Your task to perform on an android device: turn pop-ups off in chrome Image 0: 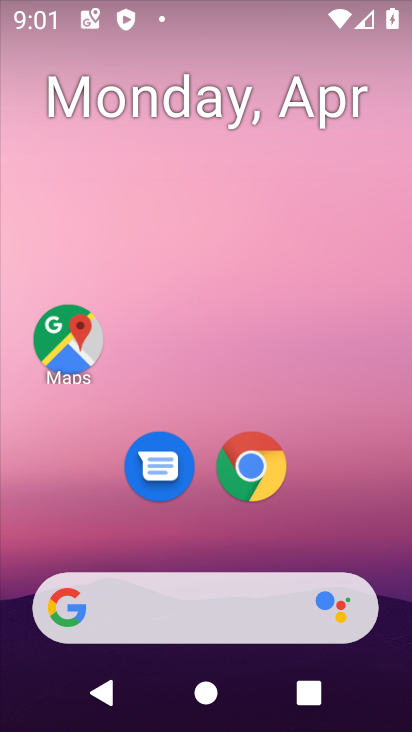
Step 0: click (257, 465)
Your task to perform on an android device: turn pop-ups off in chrome Image 1: 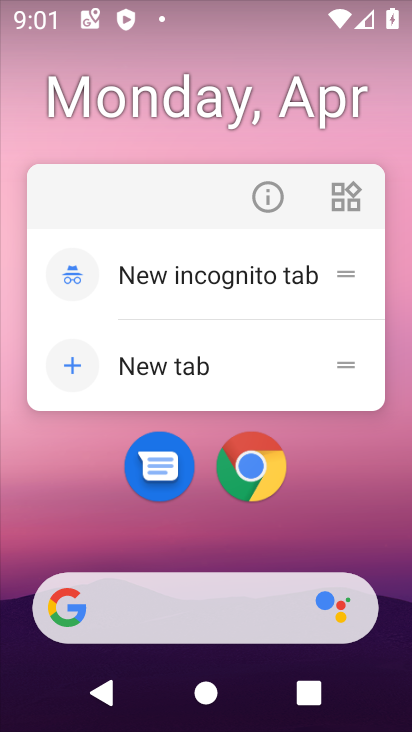
Step 1: click (256, 466)
Your task to perform on an android device: turn pop-ups off in chrome Image 2: 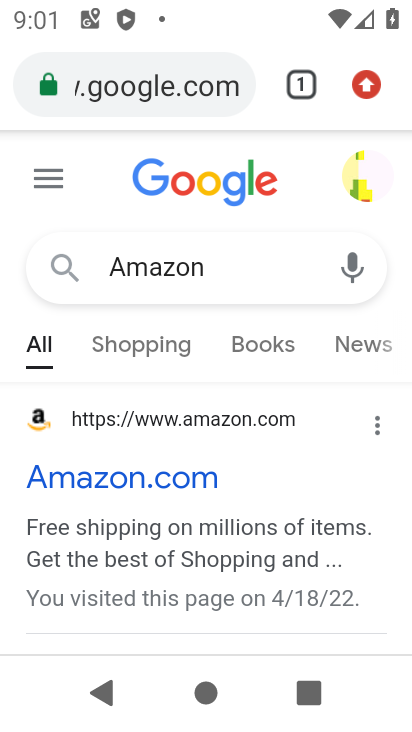
Step 2: click (370, 90)
Your task to perform on an android device: turn pop-ups off in chrome Image 3: 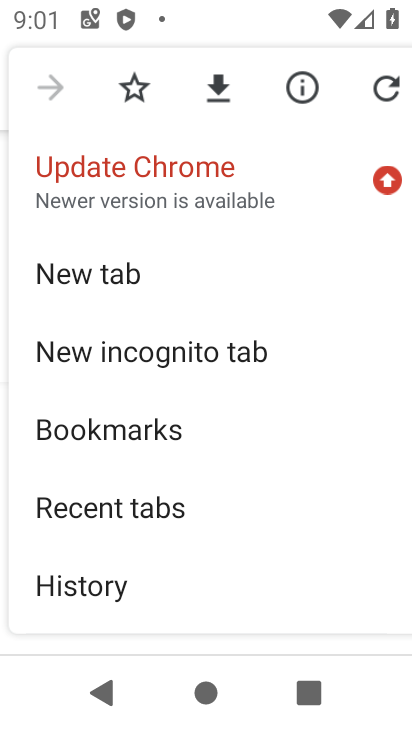
Step 3: drag from (196, 527) to (255, 371)
Your task to perform on an android device: turn pop-ups off in chrome Image 4: 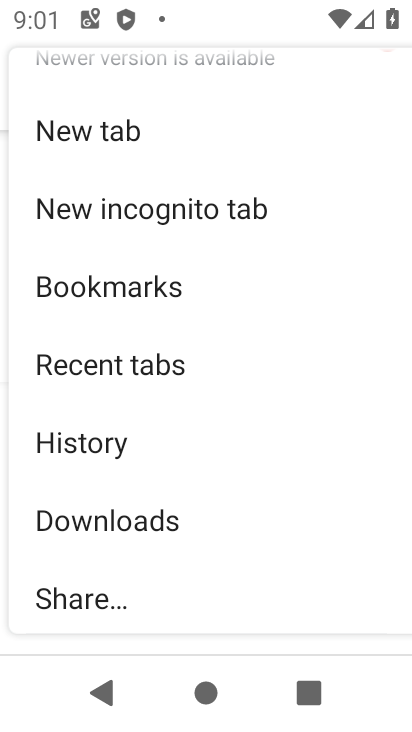
Step 4: drag from (194, 510) to (216, 417)
Your task to perform on an android device: turn pop-ups off in chrome Image 5: 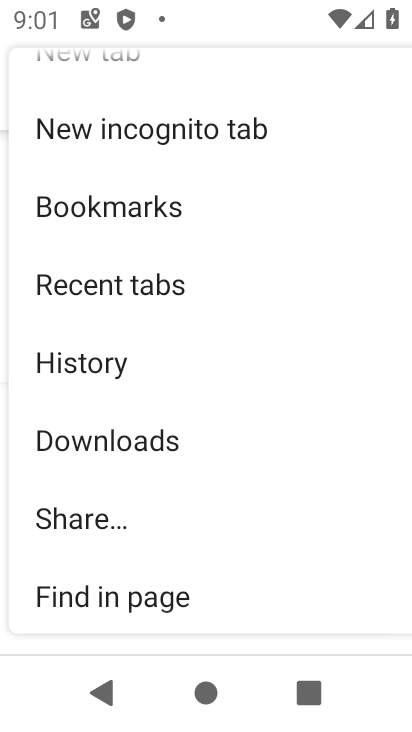
Step 5: drag from (188, 524) to (217, 418)
Your task to perform on an android device: turn pop-ups off in chrome Image 6: 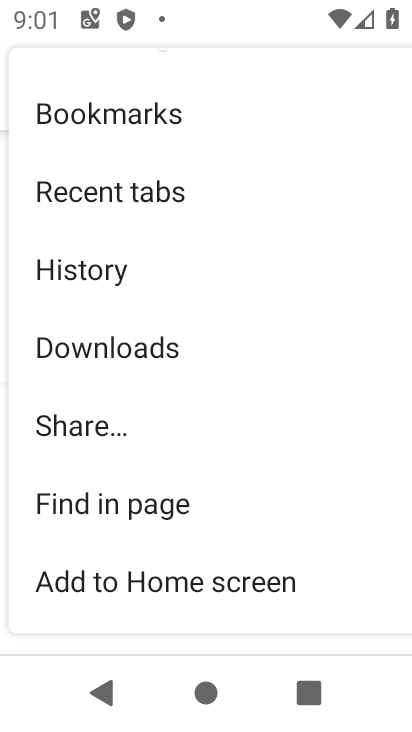
Step 6: drag from (190, 530) to (223, 456)
Your task to perform on an android device: turn pop-ups off in chrome Image 7: 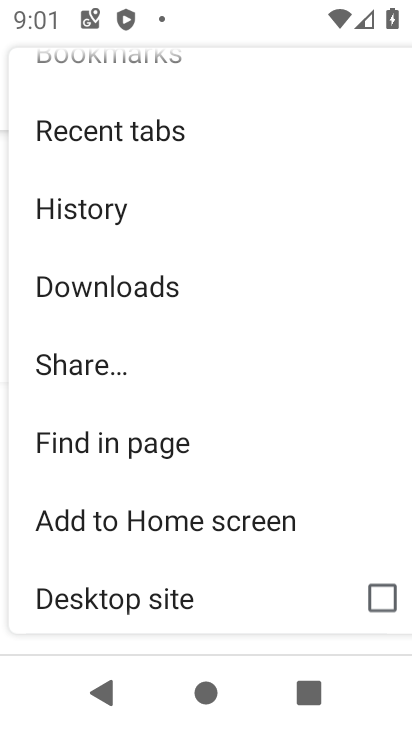
Step 7: drag from (175, 545) to (219, 466)
Your task to perform on an android device: turn pop-ups off in chrome Image 8: 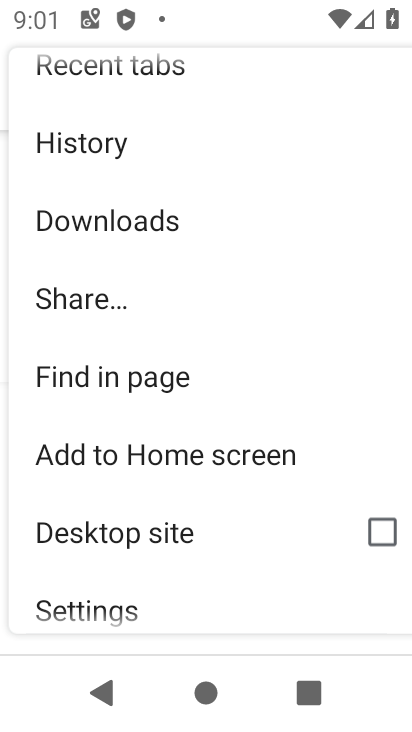
Step 8: drag from (187, 568) to (228, 468)
Your task to perform on an android device: turn pop-ups off in chrome Image 9: 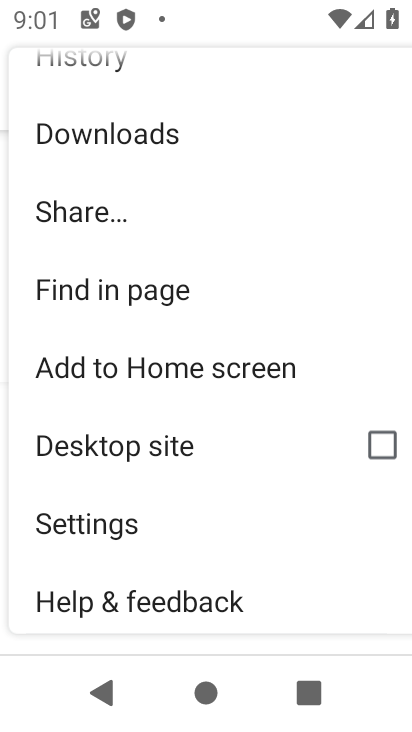
Step 9: click (94, 524)
Your task to perform on an android device: turn pop-ups off in chrome Image 10: 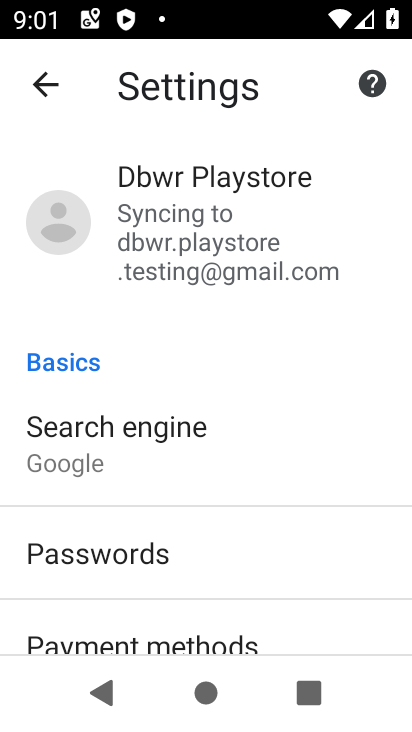
Step 10: drag from (215, 582) to (287, 434)
Your task to perform on an android device: turn pop-ups off in chrome Image 11: 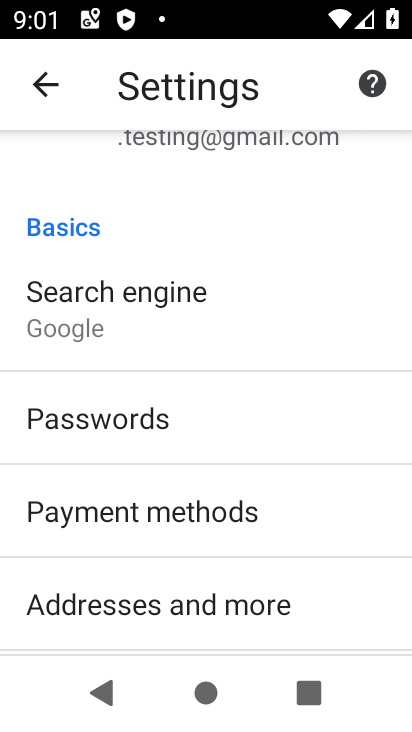
Step 11: drag from (192, 551) to (260, 390)
Your task to perform on an android device: turn pop-ups off in chrome Image 12: 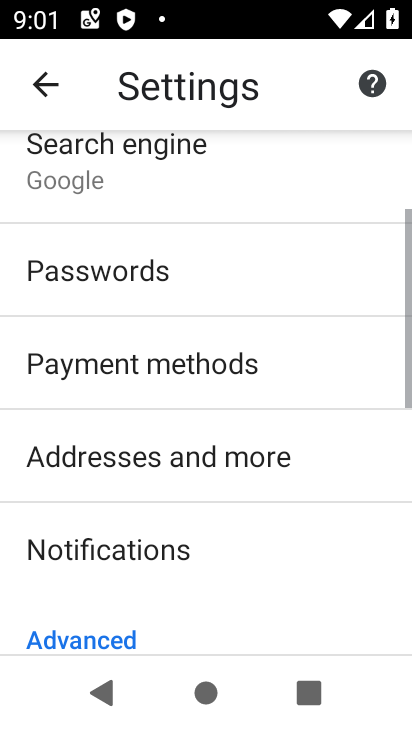
Step 12: drag from (187, 566) to (248, 434)
Your task to perform on an android device: turn pop-ups off in chrome Image 13: 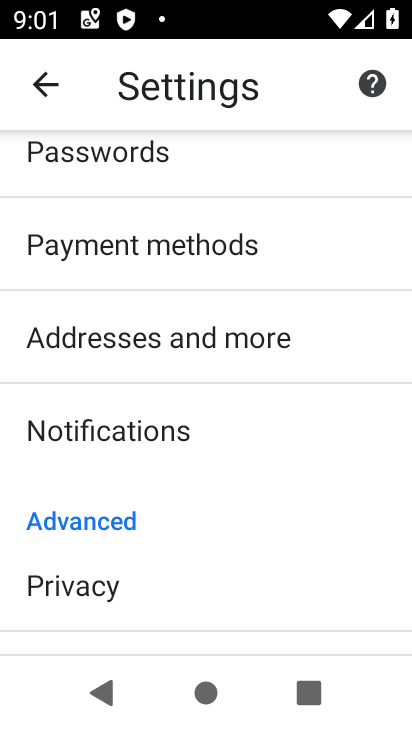
Step 13: drag from (187, 544) to (247, 420)
Your task to perform on an android device: turn pop-ups off in chrome Image 14: 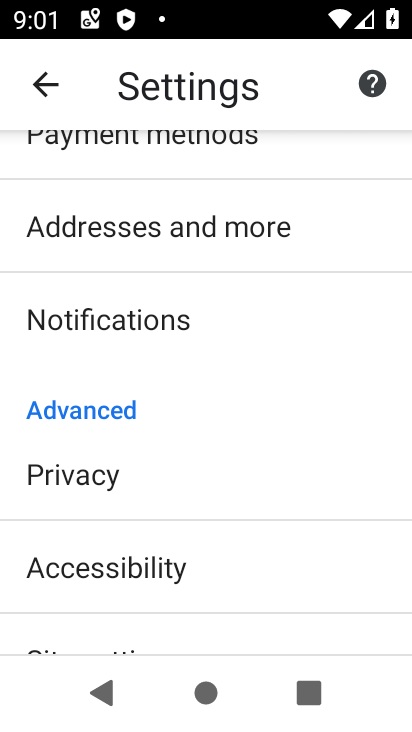
Step 14: drag from (204, 575) to (256, 488)
Your task to perform on an android device: turn pop-ups off in chrome Image 15: 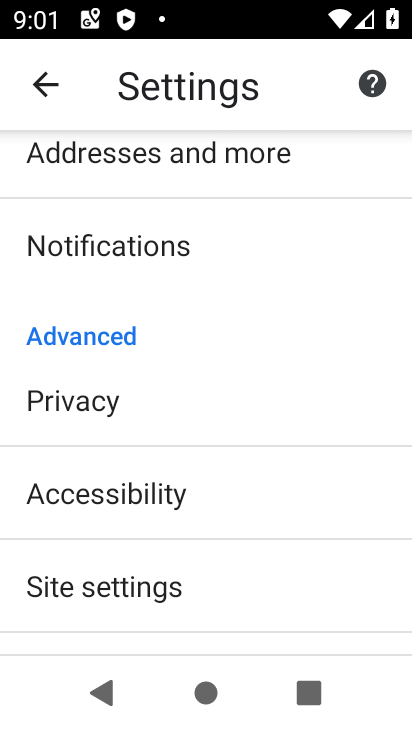
Step 15: drag from (193, 591) to (264, 465)
Your task to perform on an android device: turn pop-ups off in chrome Image 16: 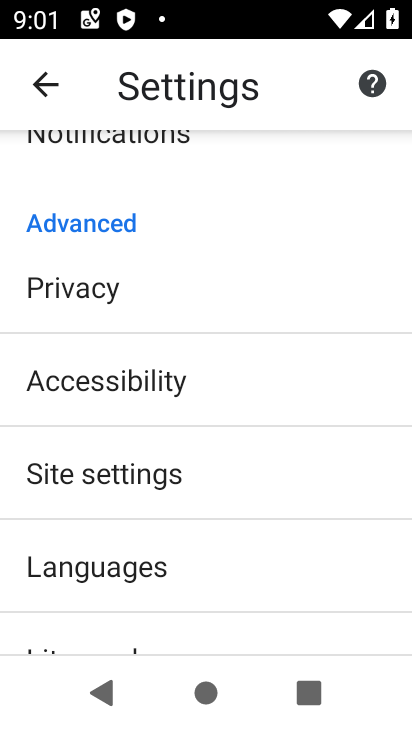
Step 16: click (153, 469)
Your task to perform on an android device: turn pop-ups off in chrome Image 17: 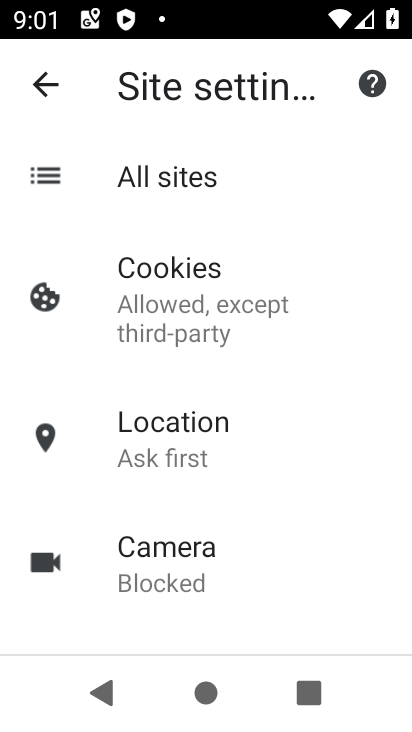
Step 17: drag from (256, 563) to (306, 436)
Your task to perform on an android device: turn pop-ups off in chrome Image 18: 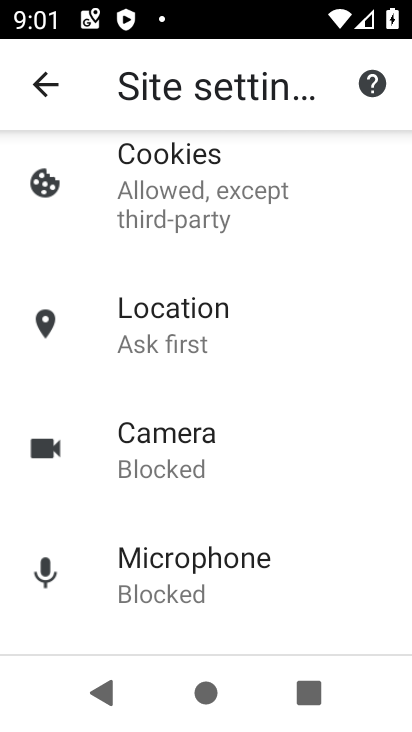
Step 18: drag from (254, 537) to (282, 462)
Your task to perform on an android device: turn pop-ups off in chrome Image 19: 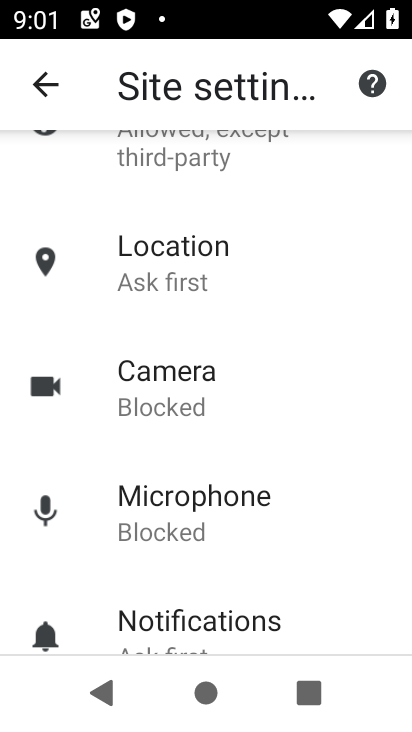
Step 19: drag from (236, 573) to (290, 453)
Your task to perform on an android device: turn pop-ups off in chrome Image 20: 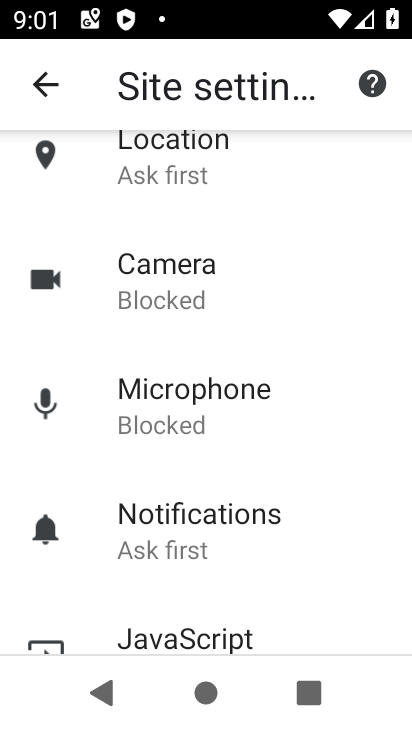
Step 20: drag from (233, 580) to (292, 478)
Your task to perform on an android device: turn pop-ups off in chrome Image 21: 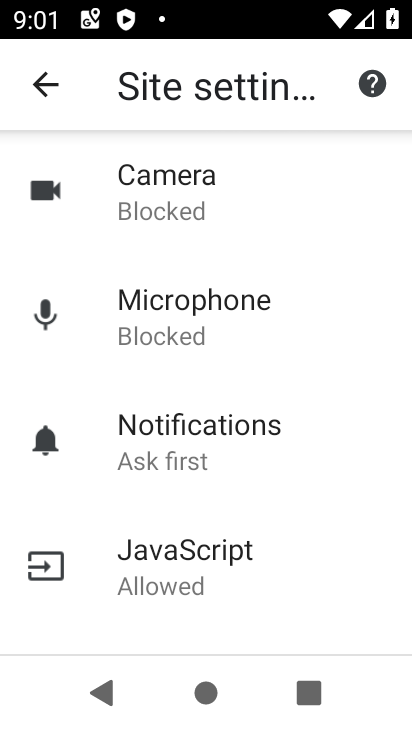
Step 21: drag from (256, 608) to (321, 466)
Your task to perform on an android device: turn pop-ups off in chrome Image 22: 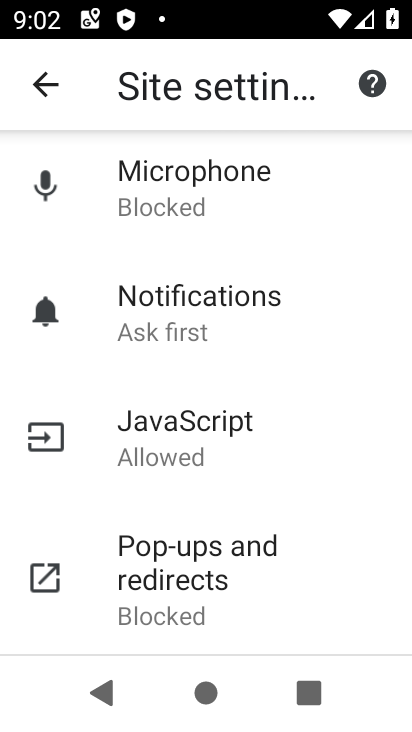
Step 22: drag from (269, 580) to (330, 447)
Your task to perform on an android device: turn pop-ups off in chrome Image 23: 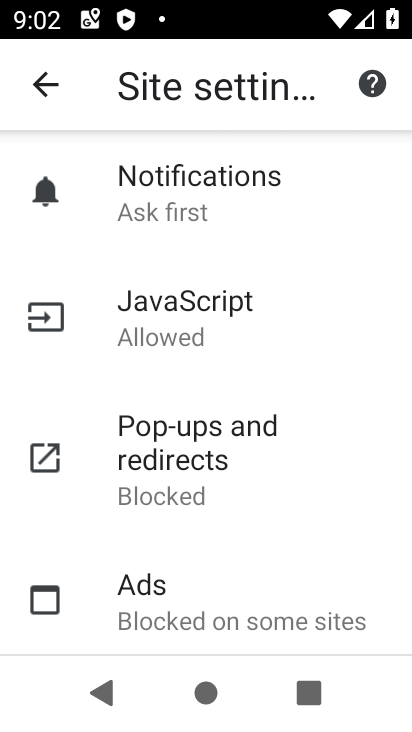
Step 23: click (276, 451)
Your task to perform on an android device: turn pop-ups off in chrome Image 24: 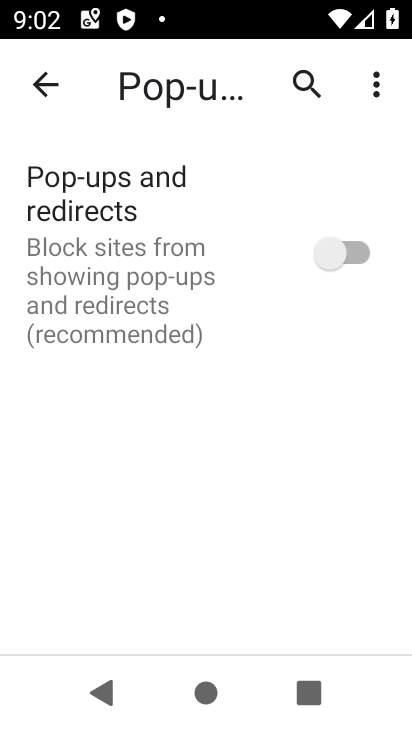
Step 24: task complete